Your task to perform on an android device: Go to Yahoo.com Image 0: 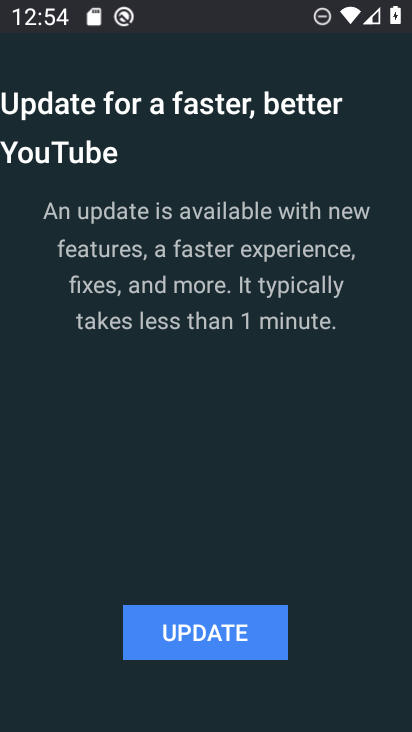
Step 0: press home button
Your task to perform on an android device: Go to Yahoo.com Image 1: 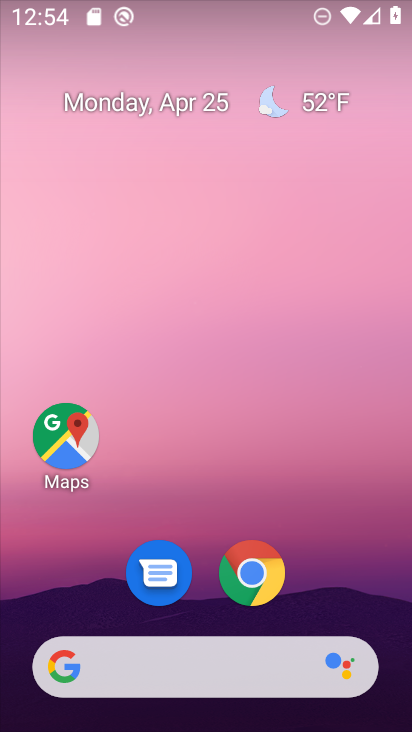
Step 1: click (248, 573)
Your task to perform on an android device: Go to Yahoo.com Image 2: 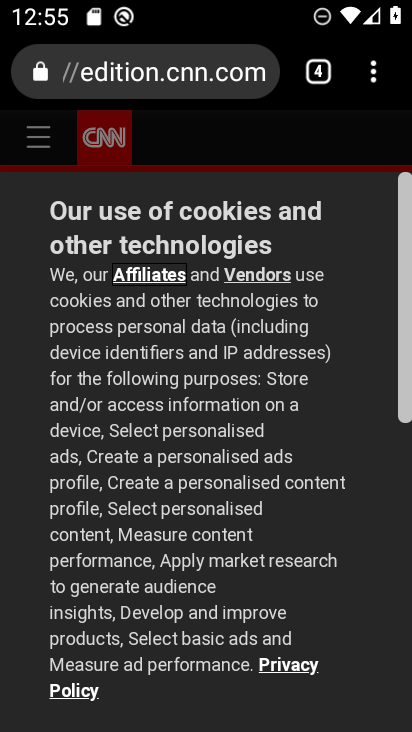
Step 2: click (374, 84)
Your task to perform on an android device: Go to Yahoo.com Image 3: 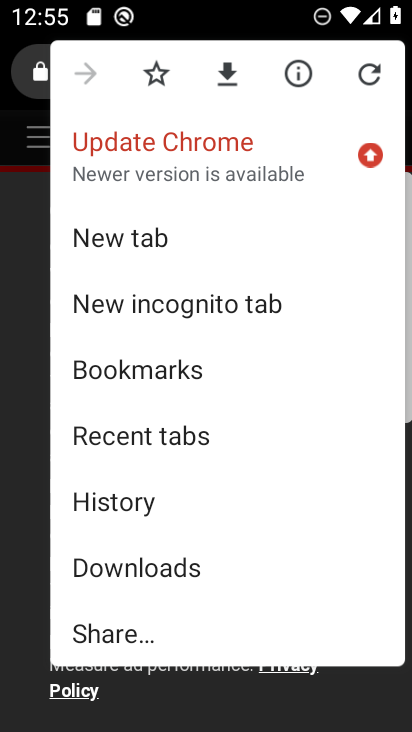
Step 3: click (129, 233)
Your task to perform on an android device: Go to Yahoo.com Image 4: 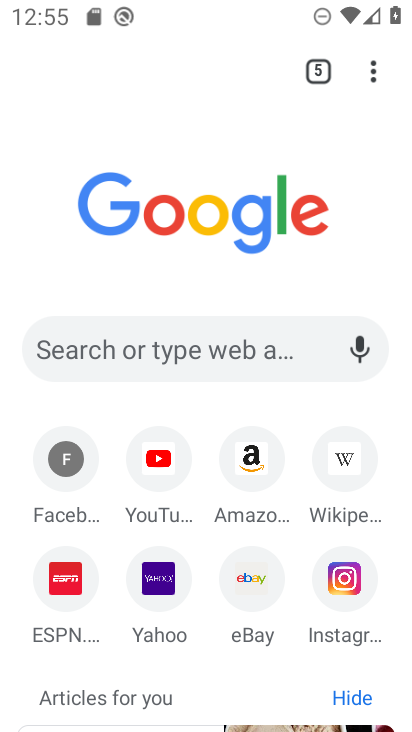
Step 4: click (154, 583)
Your task to perform on an android device: Go to Yahoo.com Image 5: 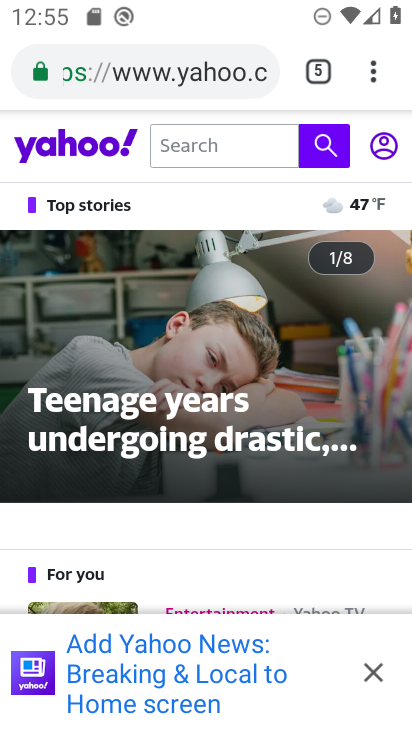
Step 5: task complete